Your task to perform on an android device: Go to battery settings Image 0: 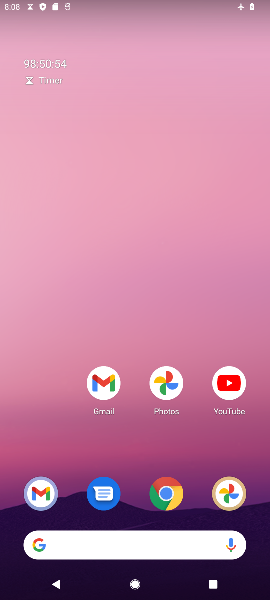
Step 0: drag from (164, 478) to (178, 168)
Your task to perform on an android device: Go to battery settings Image 1: 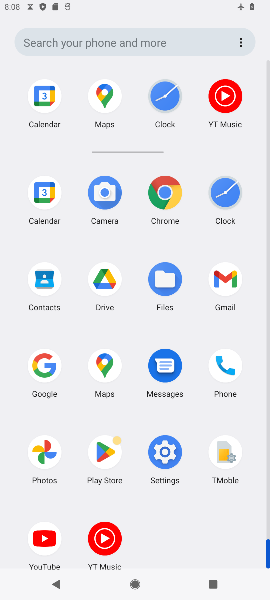
Step 1: click (161, 453)
Your task to perform on an android device: Go to battery settings Image 2: 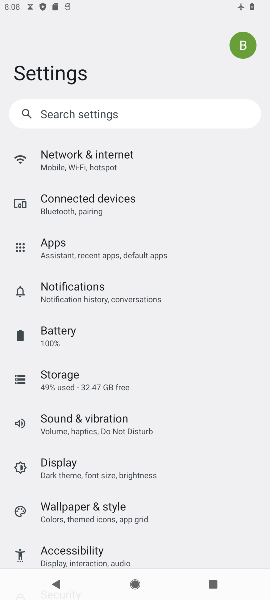
Step 2: click (97, 333)
Your task to perform on an android device: Go to battery settings Image 3: 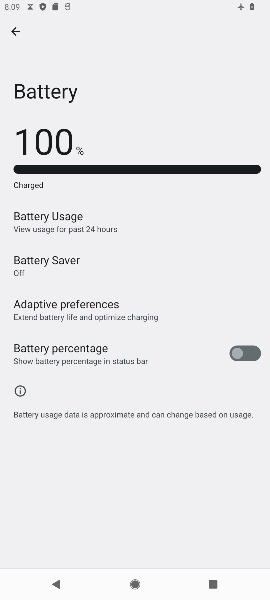
Step 3: task complete